Your task to perform on an android device: Search for "logitech g502" on ebay, select the first entry, add it to the cart, then select checkout. Image 0: 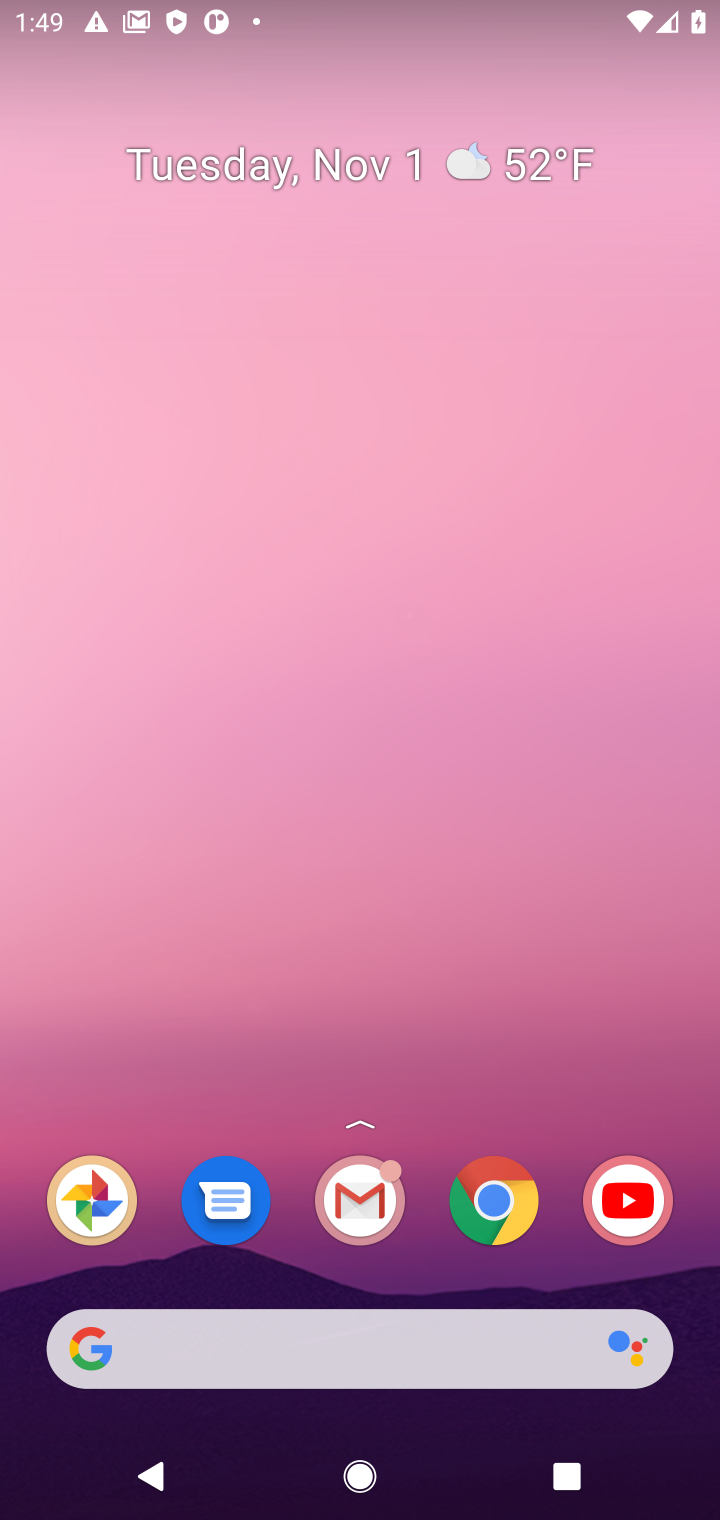
Step 0: click (500, 1215)
Your task to perform on an android device: Search for "logitech g502" on ebay, select the first entry, add it to the cart, then select checkout. Image 1: 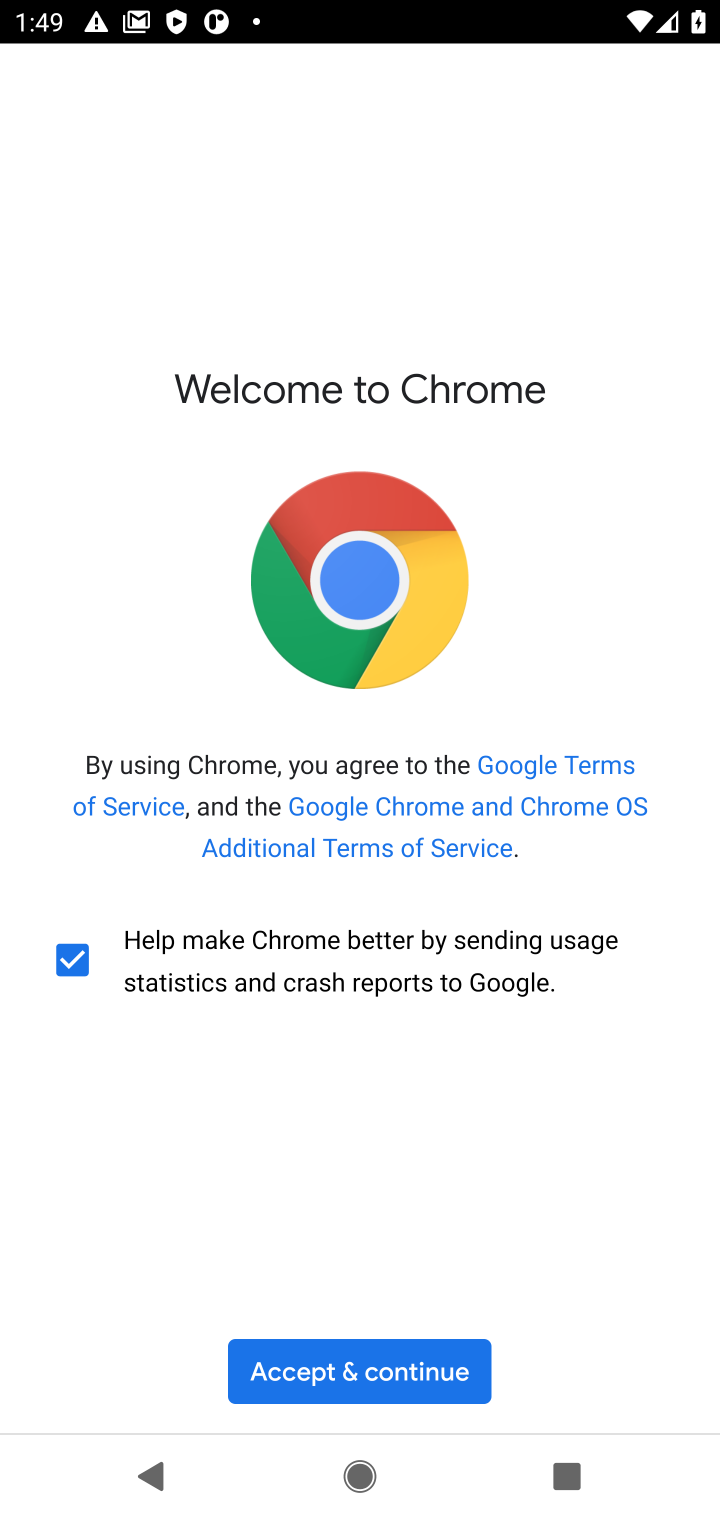
Step 1: click (291, 1376)
Your task to perform on an android device: Search for "logitech g502" on ebay, select the first entry, add it to the cart, then select checkout. Image 2: 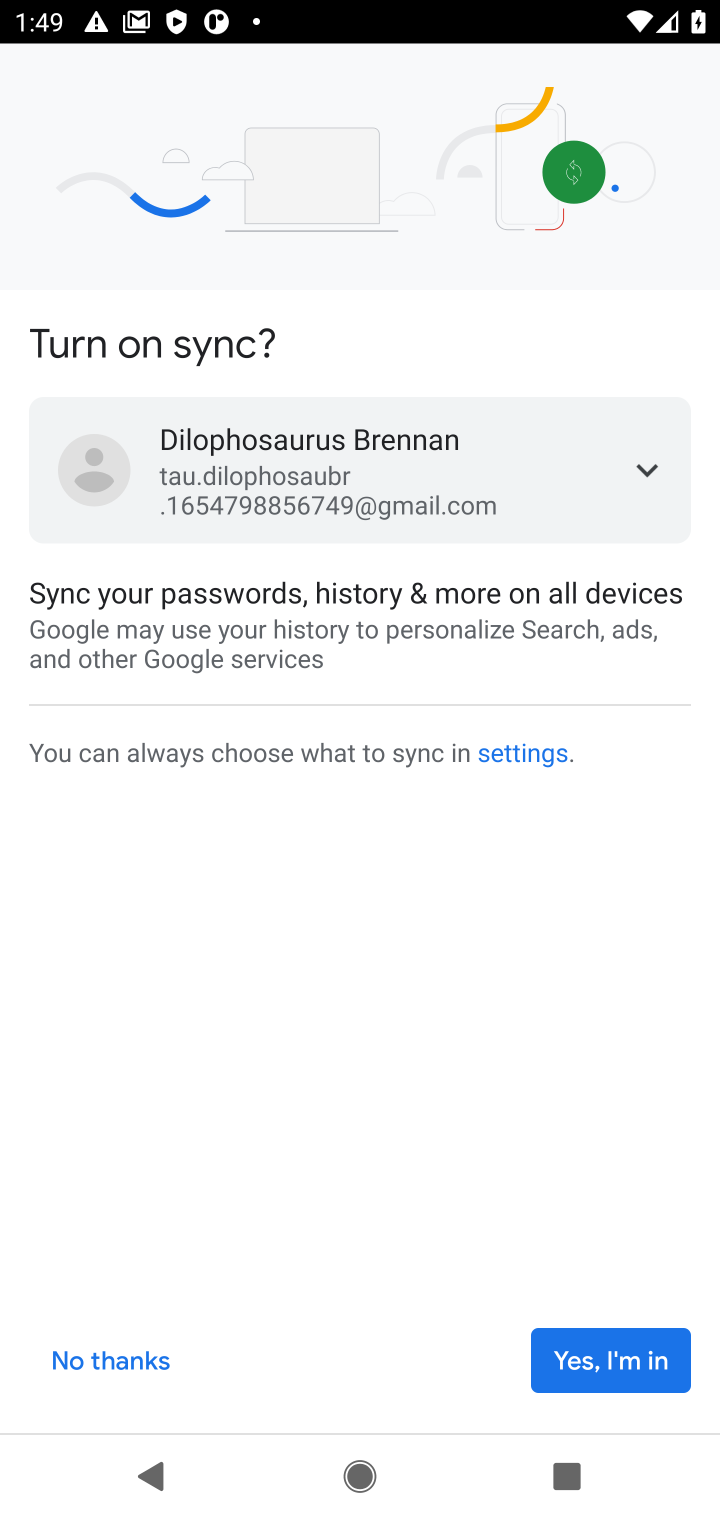
Step 2: click (634, 1361)
Your task to perform on an android device: Search for "logitech g502" on ebay, select the first entry, add it to the cart, then select checkout. Image 3: 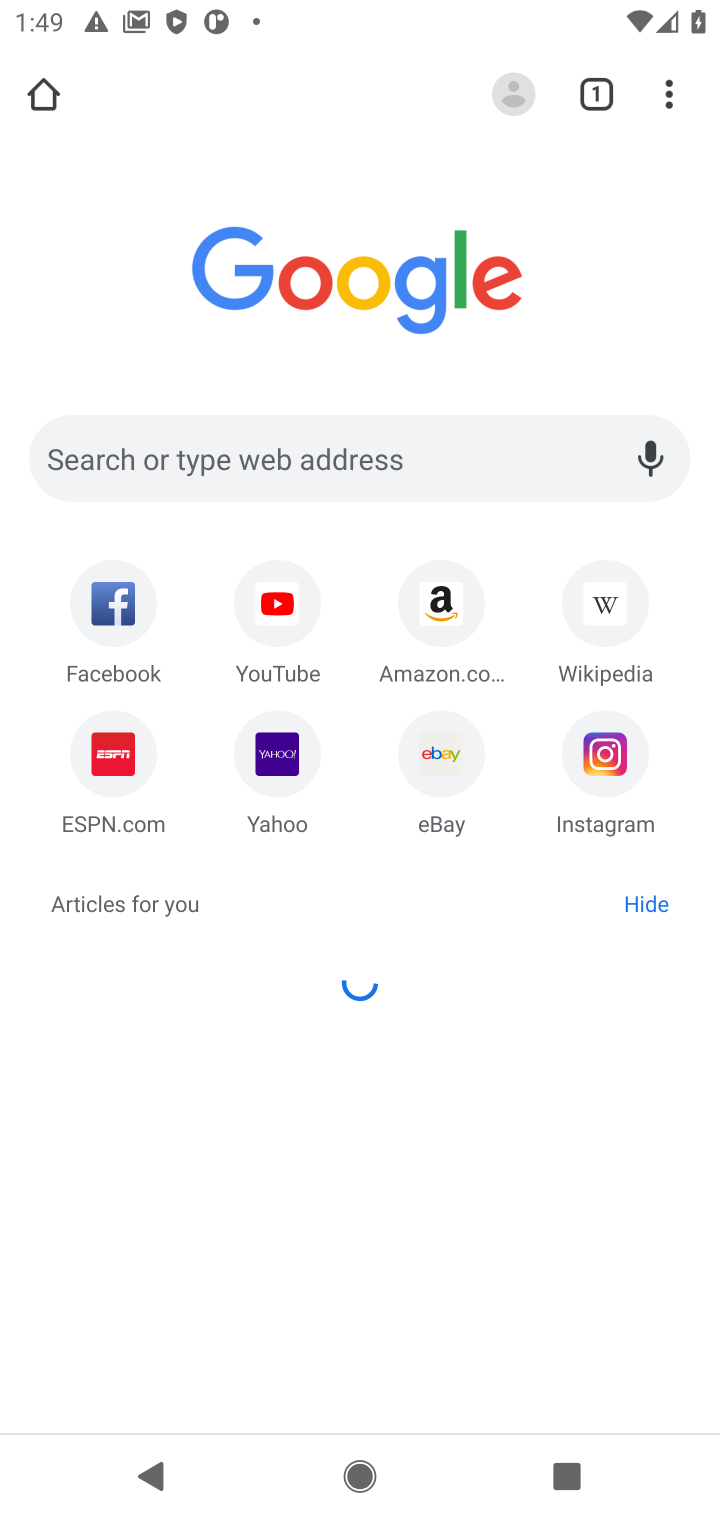
Step 3: click (274, 444)
Your task to perform on an android device: Search for "logitech g502" on ebay, select the first entry, add it to the cart, then select checkout. Image 4: 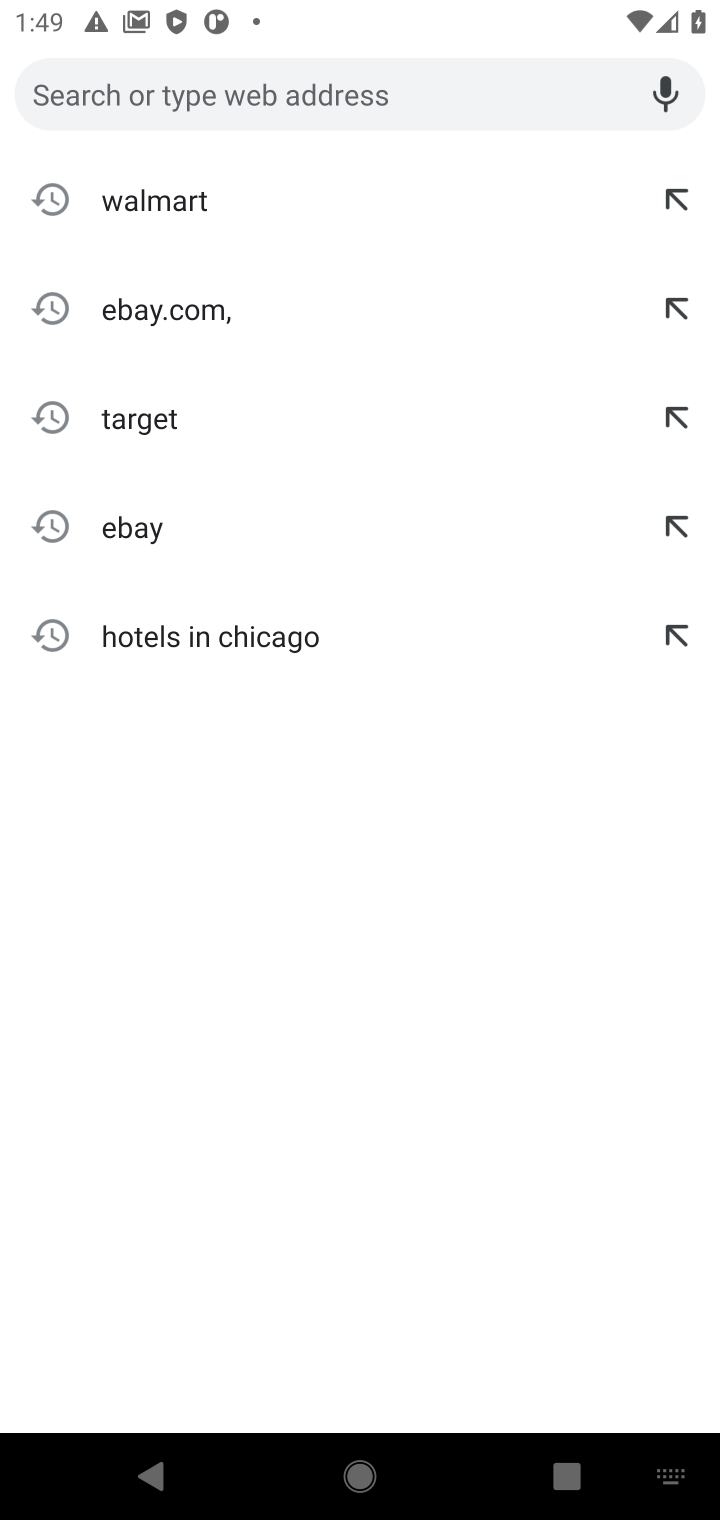
Step 4: type "ebay"
Your task to perform on an android device: Search for "logitech g502" on ebay, select the first entry, add it to the cart, then select checkout. Image 5: 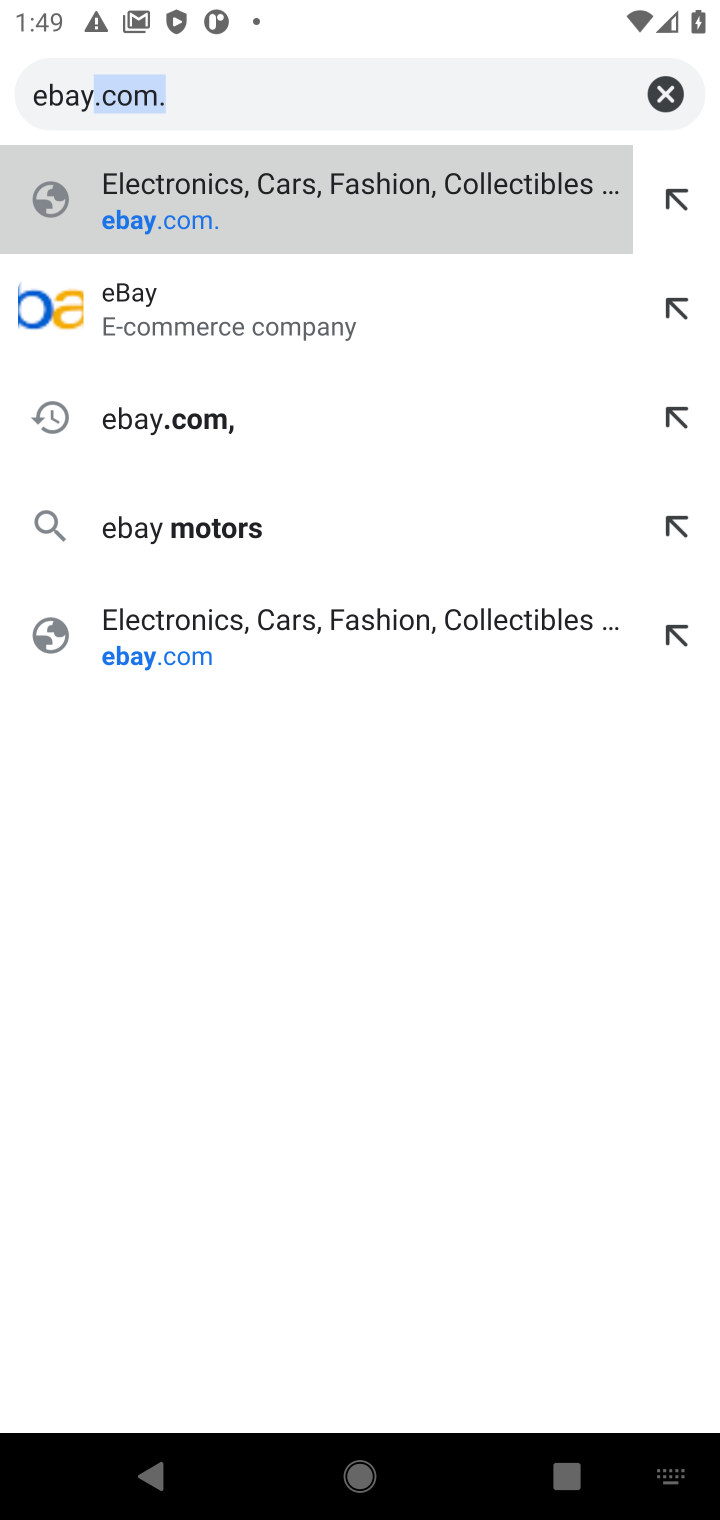
Step 5: click (242, 218)
Your task to perform on an android device: Search for "logitech g502" on ebay, select the first entry, add it to the cart, then select checkout. Image 6: 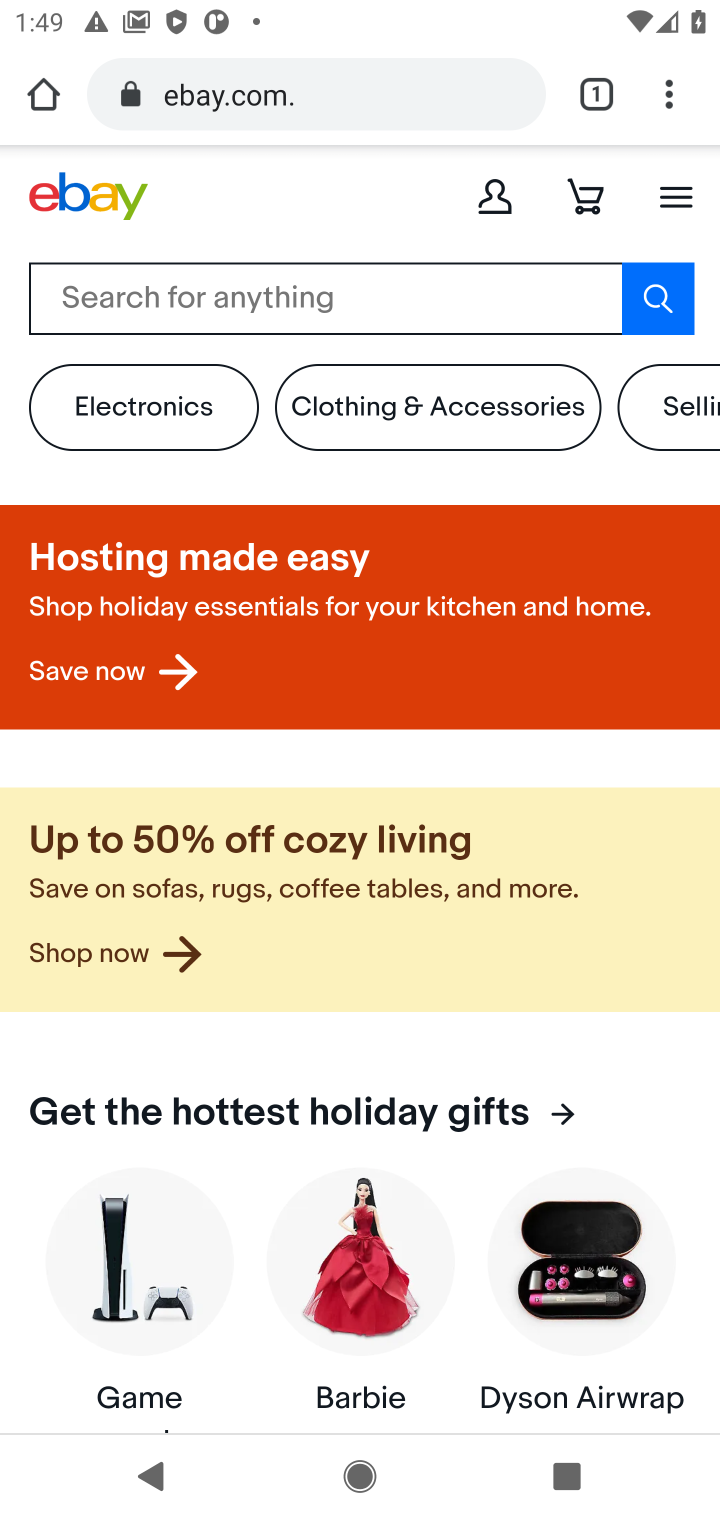
Step 6: click (343, 289)
Your task to perform on an android device: Search for "logitech g502" on ebay, select the first entry, add it to the cart, then select checkout. Image 7: 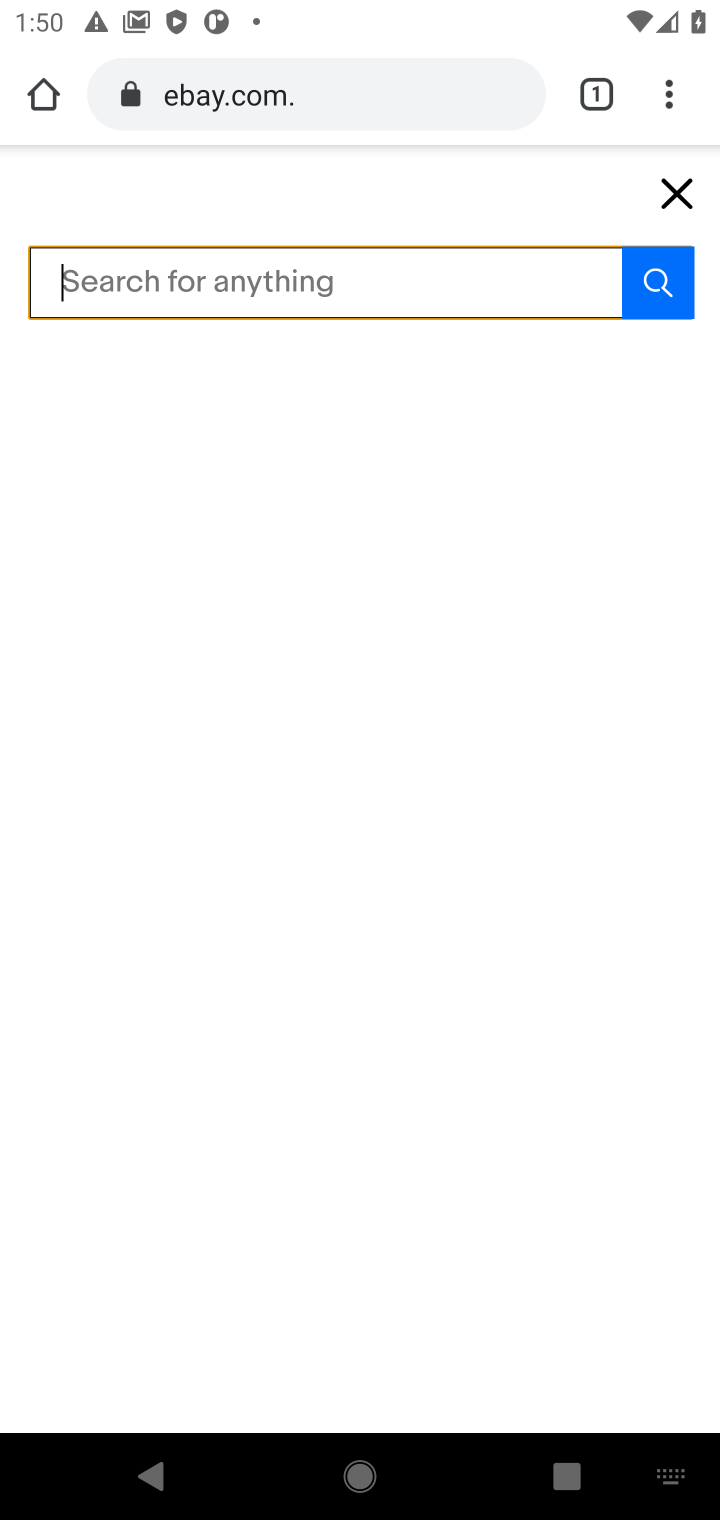
Step 7: type "logitech g502"
Your task to perform on an android device: Search for "logitech g502" on ebay, select the first entry, add it to the cart, then select checkout. Image 8: 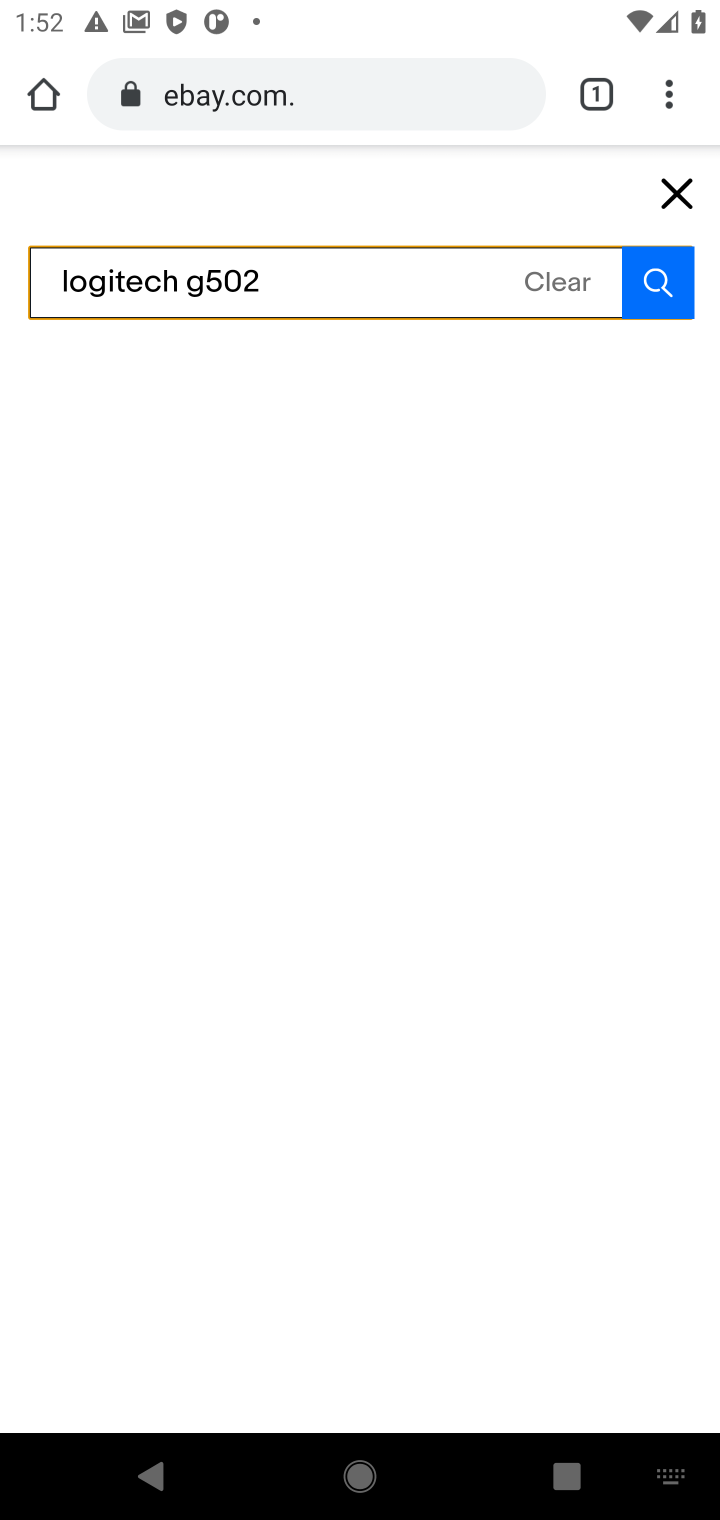
Step 8: task complete